Your task to perform on an android device: visit the assistant section in the google photos Image 0: 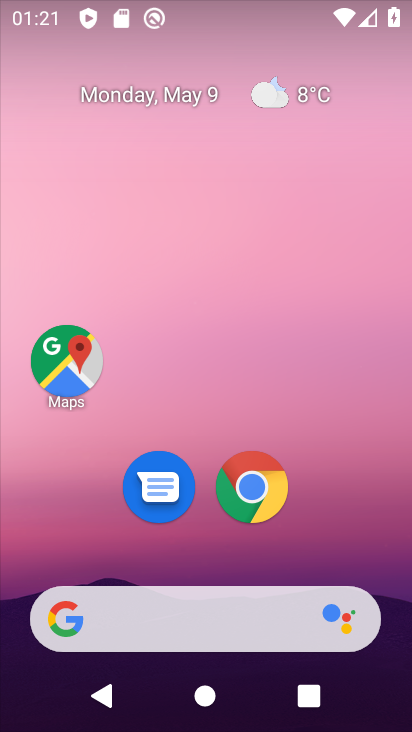
Step 0: drag from (344, 522) to (259, 148)
Your task to perform on an android device: visit the assistant section in the google photos Image 1: 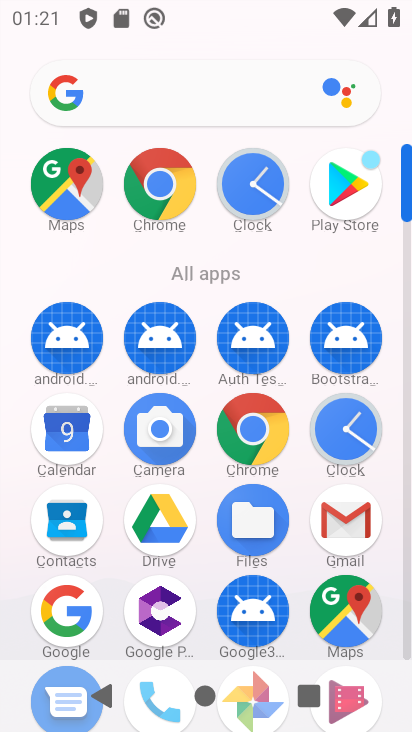
Step 1: drag from (200, 565) to (174, 263)
Your task to perform on an android device: visit the assistant section in the google photos Image 2: 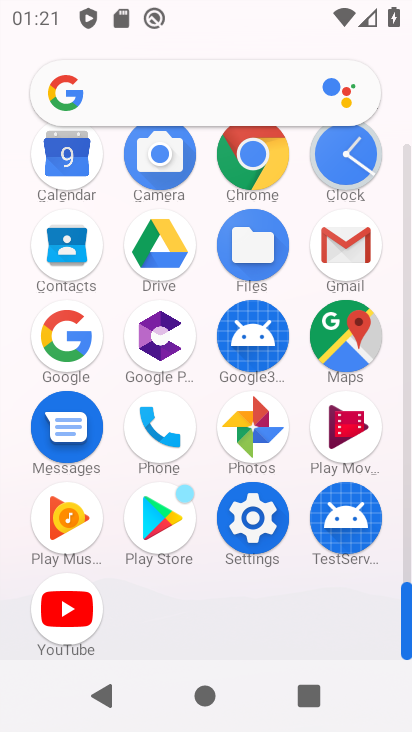
Step 2: click (256, 438)
Your task to perform on an android device: visit the assistant section in the google photos Image 3: 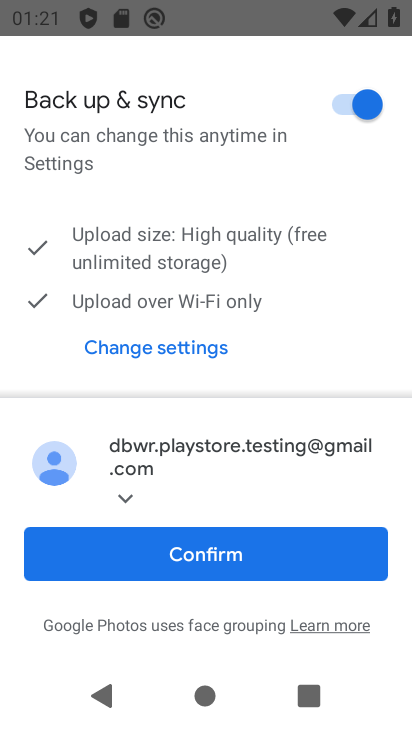
Step 3: click (191, 555)
Your task to perform on an android device: visit the assistant section in the google photos Image 4: 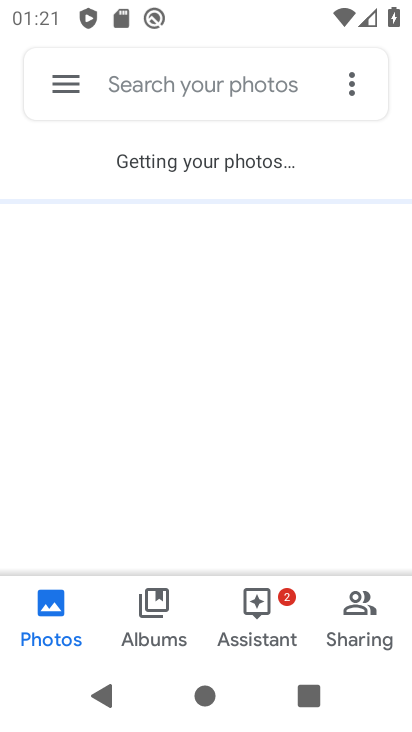
Step 4: click (242, 601)
Your task to perform on an android device: visit the assistant section in the google photos Image 5: 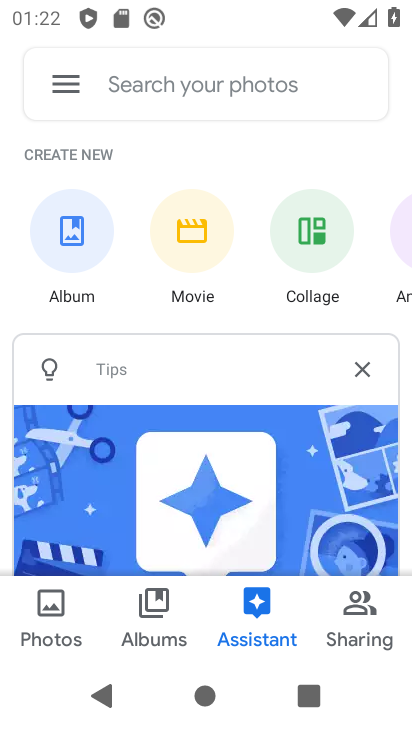
Step 5: task complete